Your task to perform on an android device: toggle translation in the chrome app Image 0: 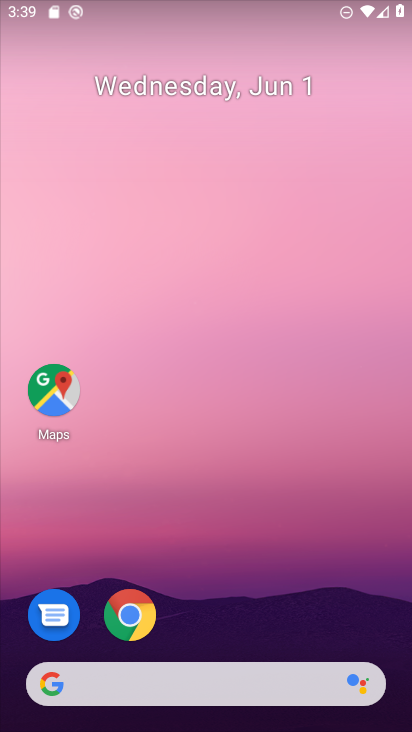
Step 0: press home button
Your task to perform on an android device: toggle translation in the chrome app Image 1: 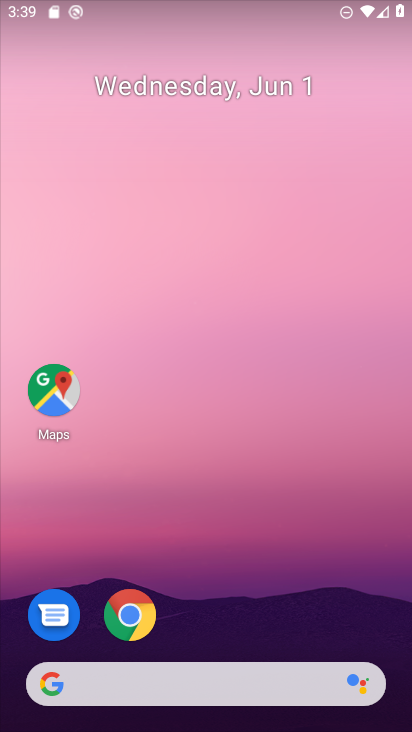
Step 1: click (126, 610)
Your task to perform on an android device: toggle translation in the chrome app Image 2: 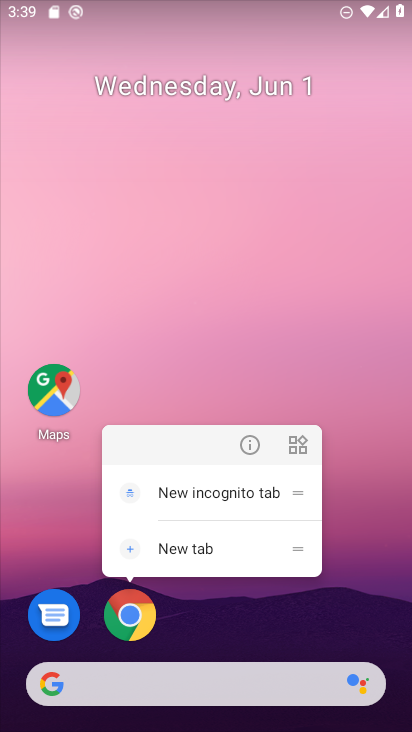
Step 2: click (129, 607)
Your task to perform on an android device: toggle translation in the chrome app Image 3: 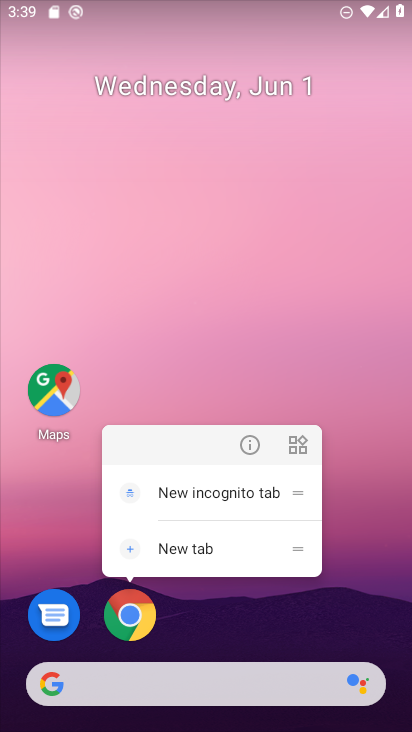
Step 3: click (129, 607)
Your task to perform on an android device: toggle translation in the chrome app Image 4: 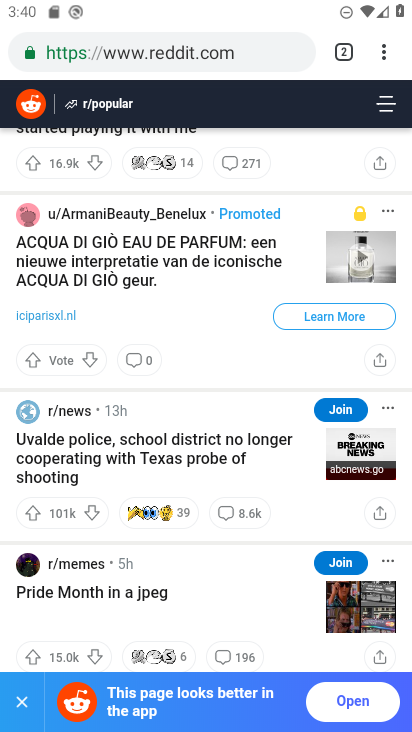
Step 4: click (388, 44)
Your task to perform on an android device: toggle translation in the chrome app Image 5: 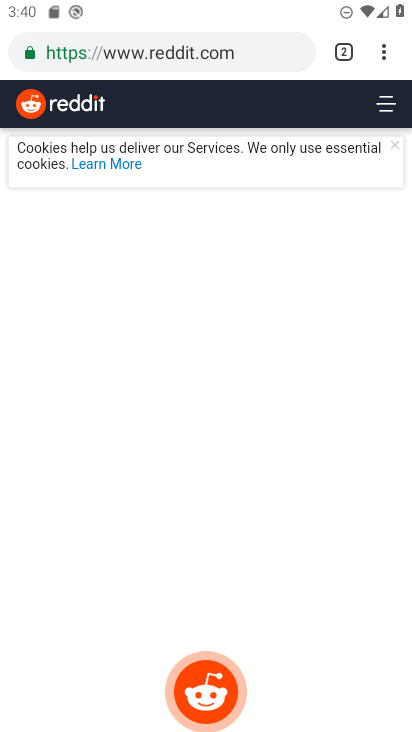
Step 5: click (380, 51)
Your task to perform on an android device: toggle translation in the chrome app Image 6: 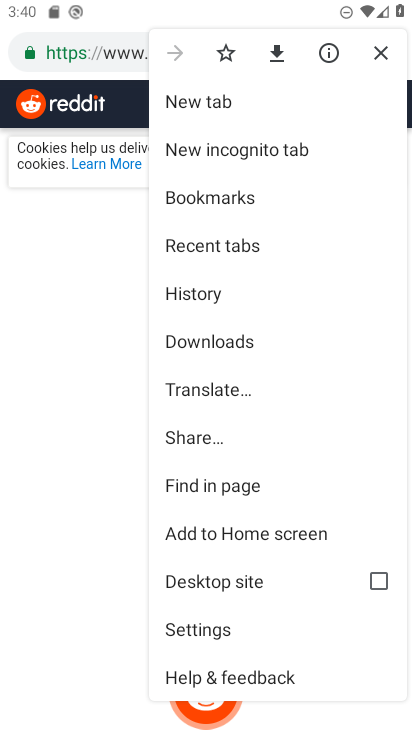
Step 6: click (236, 625)
Your task to perform on an android device: toggle translation in the chrome app Image 7: 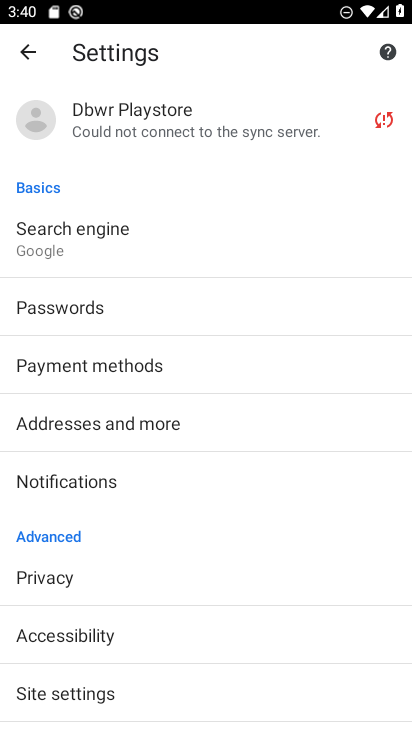
Step 7: drag from (198, 677) to (231, 192)
Your task to perform on an android device: toggle translation in the chrome app Image 8: 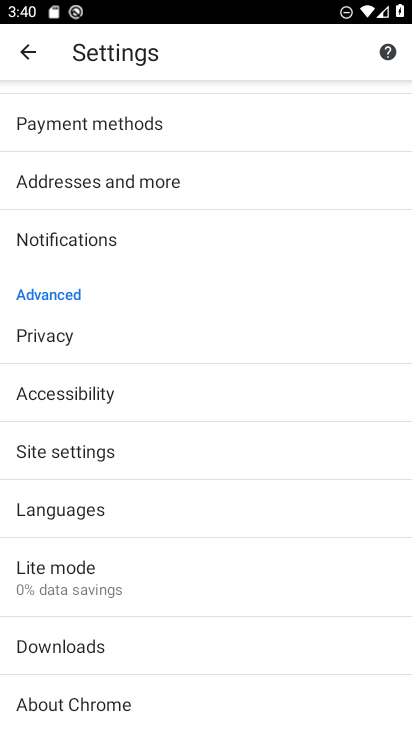
Step 8: click (120, 505)
Your task to perform on an android device: toggle translation in the chrome app Image 9: 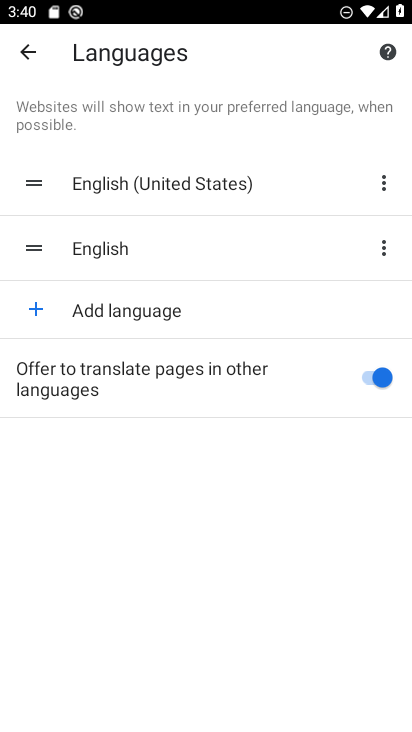
Step 9: click (369, 375)
Your task to perform on an android device: toggle translation in the chrome app Image 10: 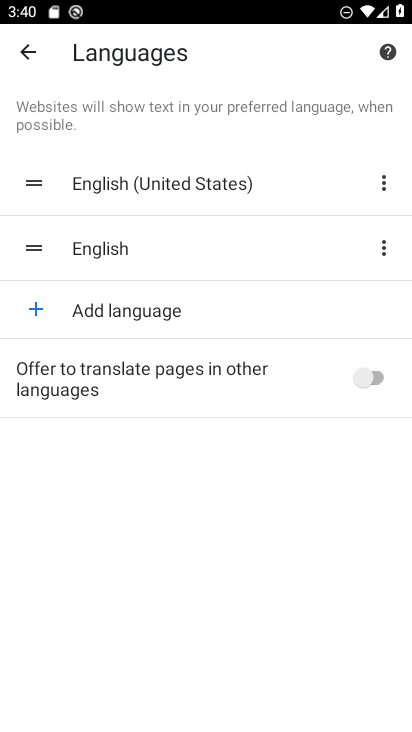
Step 10: task complete